Your task to perform on an android device: move a message to another label in the gmail app Image 0: 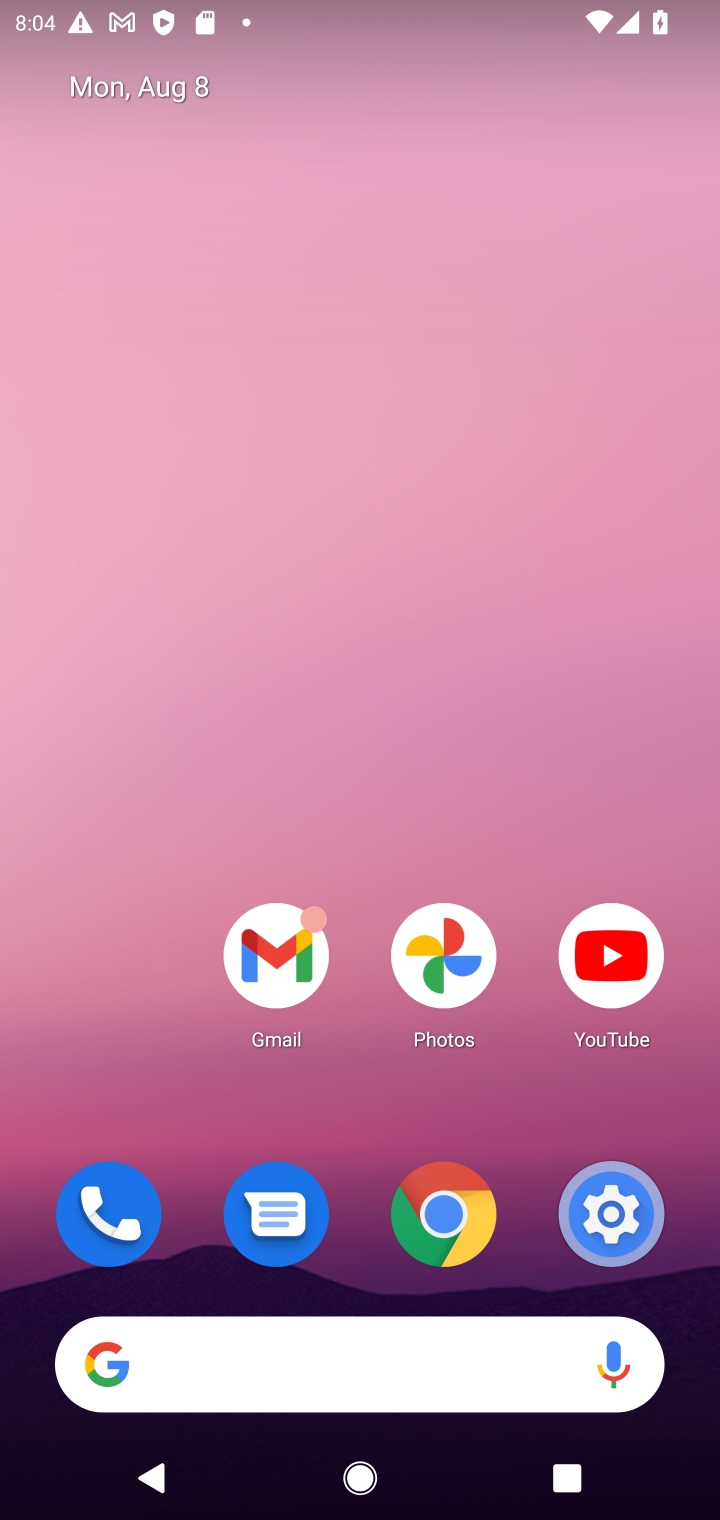
Step 0: click (264, 959)
Your task to perform on an android device: move a message to another label in the gmail app Image 1: 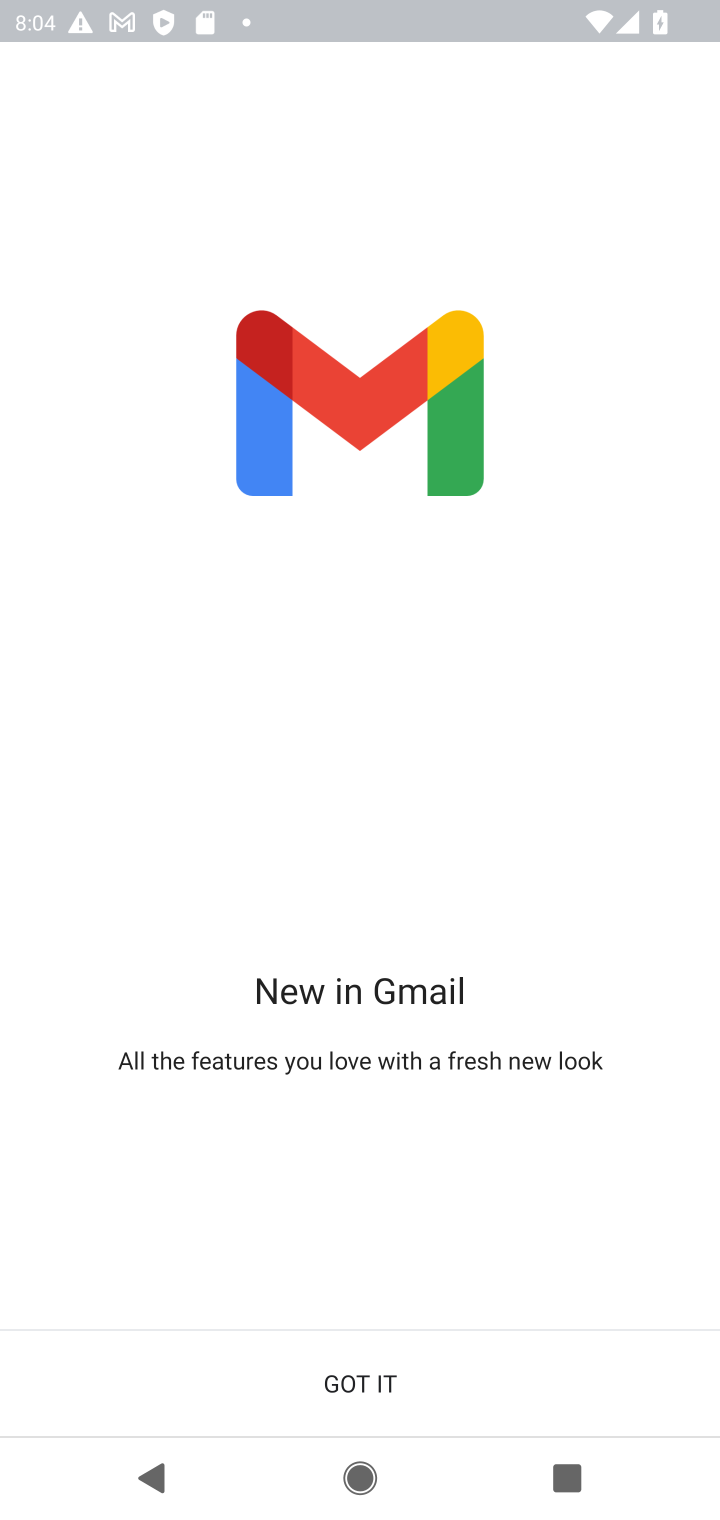
Step 1: click (446, 1399)
Your task to perform on an android device: move a message to another label in the gmail app Image 2: 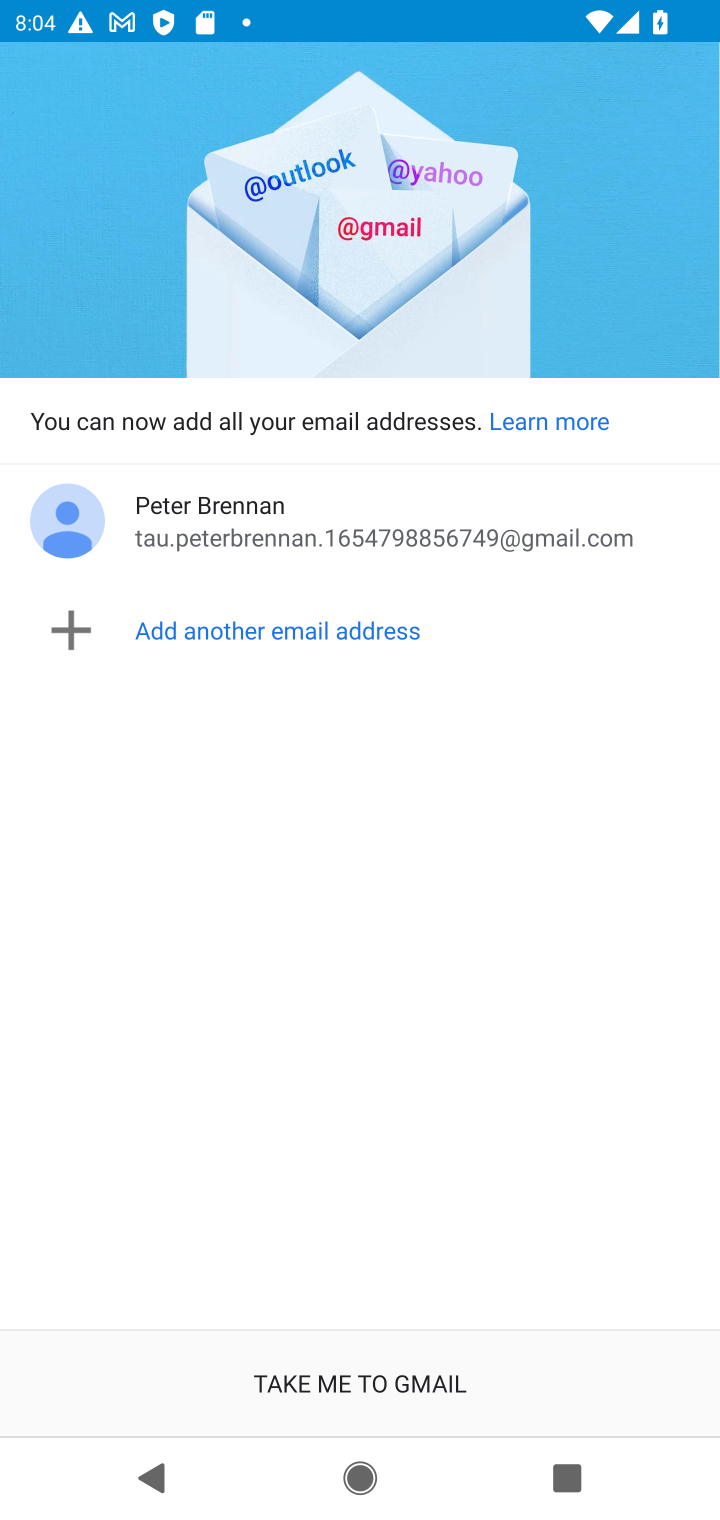
Step 2: click (424, 1383)
Your task to perform on an android device: move a message to another label in the gmail app Image 3: 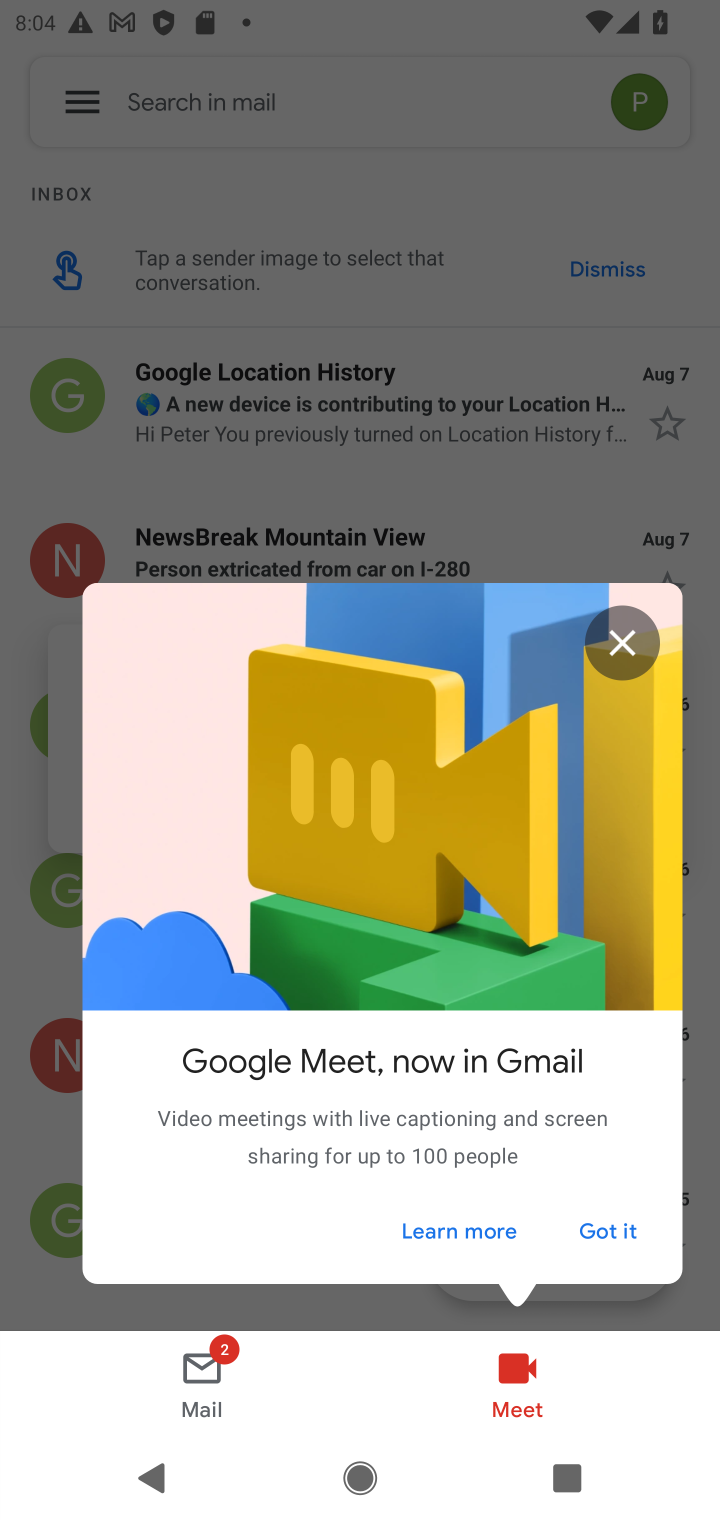
Step 3: click (610, 1236)
Your task to perform on an android device: move a message to another label in the gmail app Image 4: 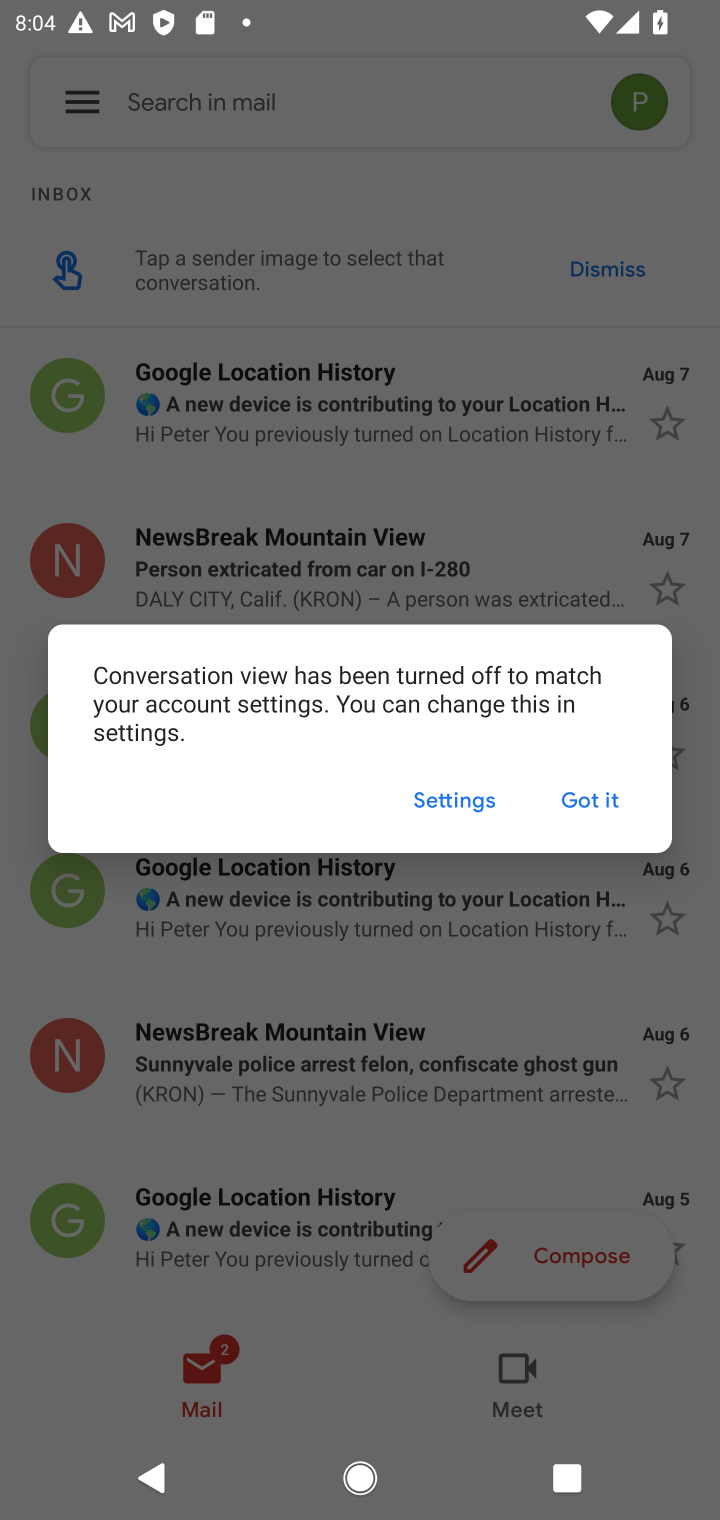
Step 4: click (574, 805)
Your task to perform on an android device: move a message to another label in the gmail app Image 5: 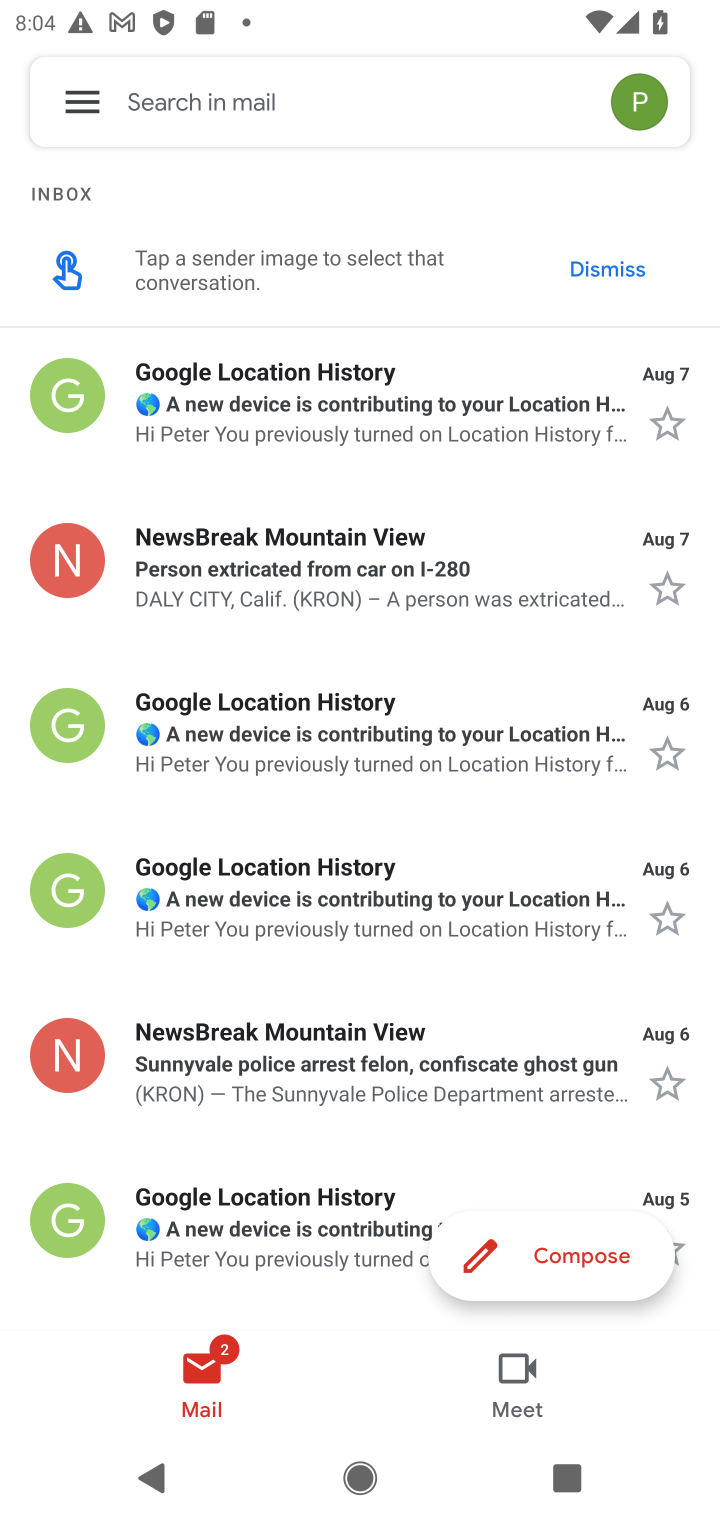
Step 5: click (337, 411)
Your task to perform on an android device: move a message to another label in the gmail app Image 6: 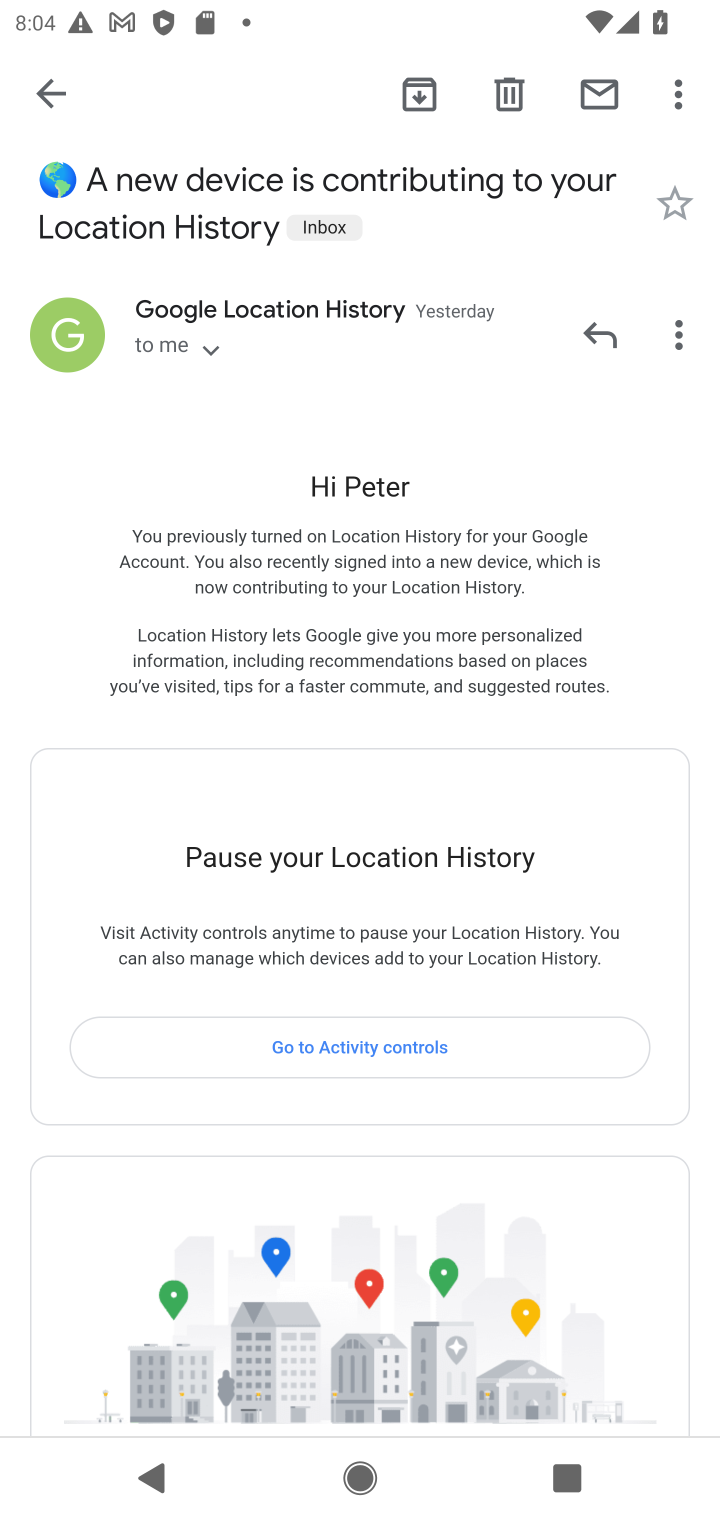
Step 6: click (672, 80)
Your task to perform on an android device: move a message to another label in the gmail app Image 7: 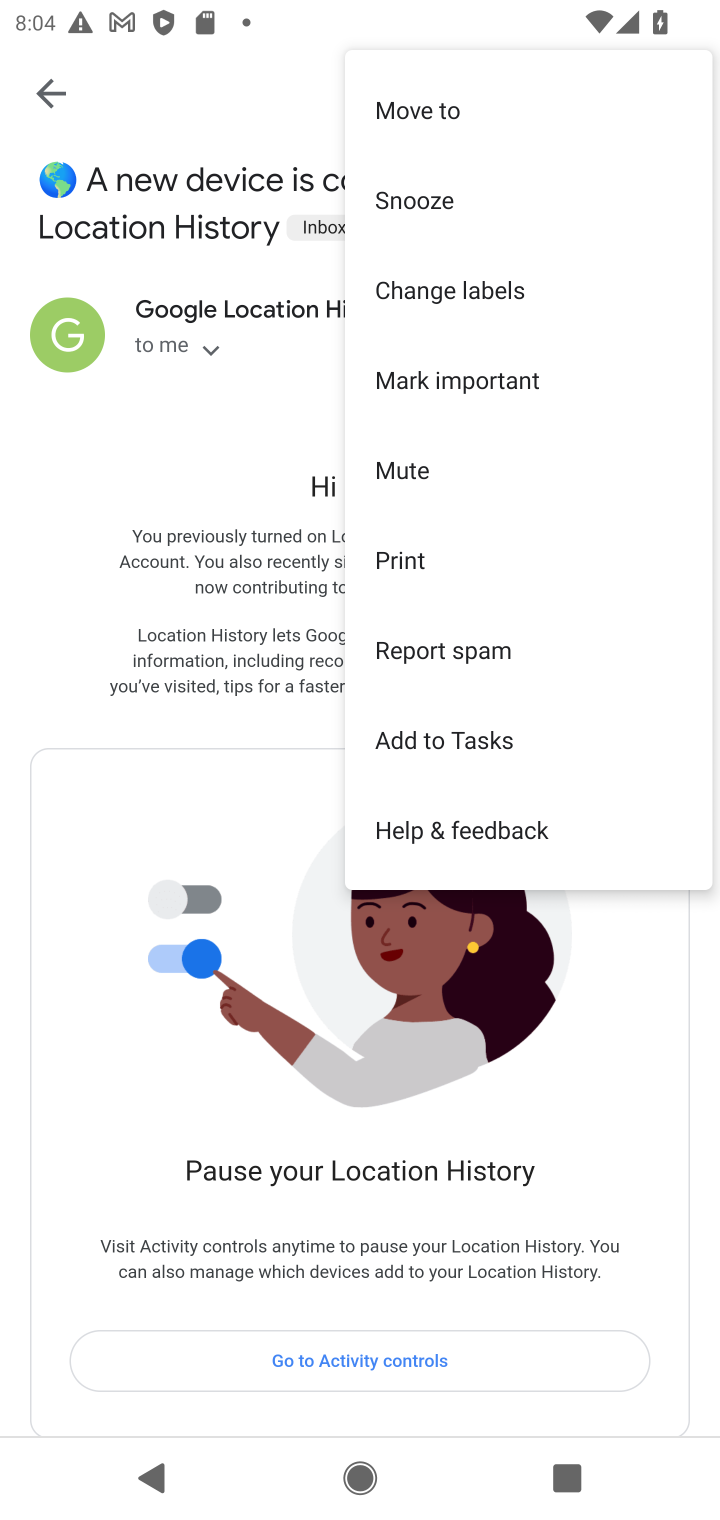
Step 7: click (426, 100)
Your task to perform on an android device: move a message to another label in the gmail app Image 8: 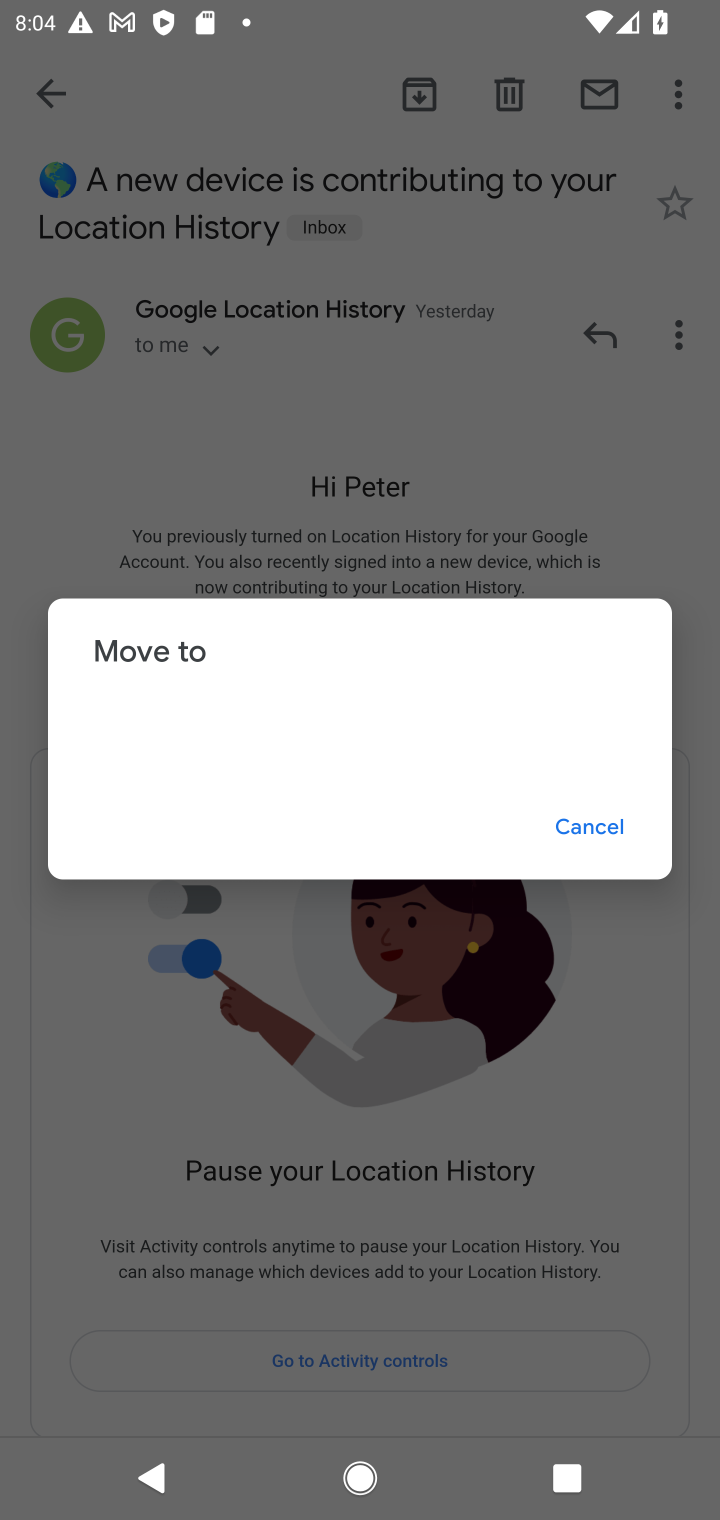
Step 8: click (574, 824)
Your task to perform on an android device: move a message to another label in the gmail app Image 9: 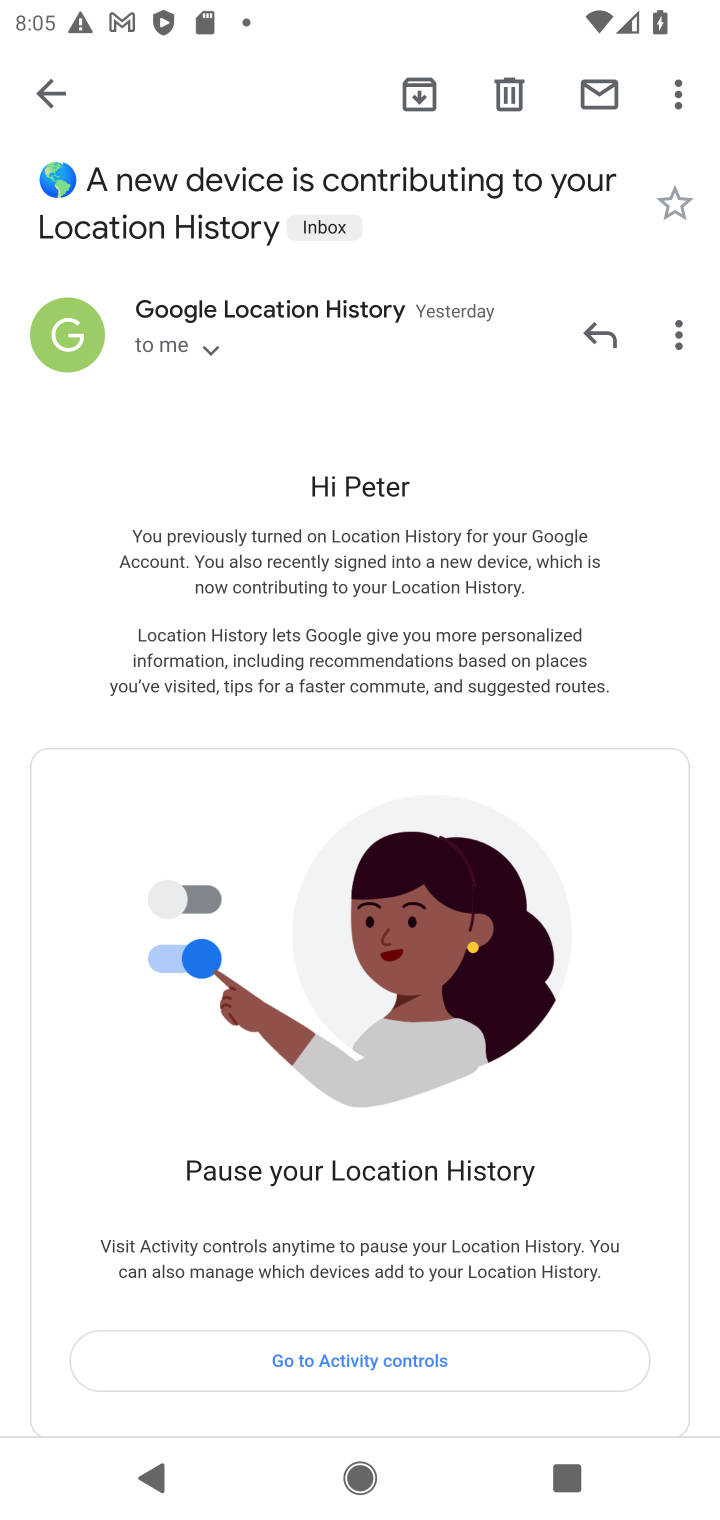
Step 9: click (663, 109)
Your task to perform on an android device: move a message to another label in the gmail app Image 10: 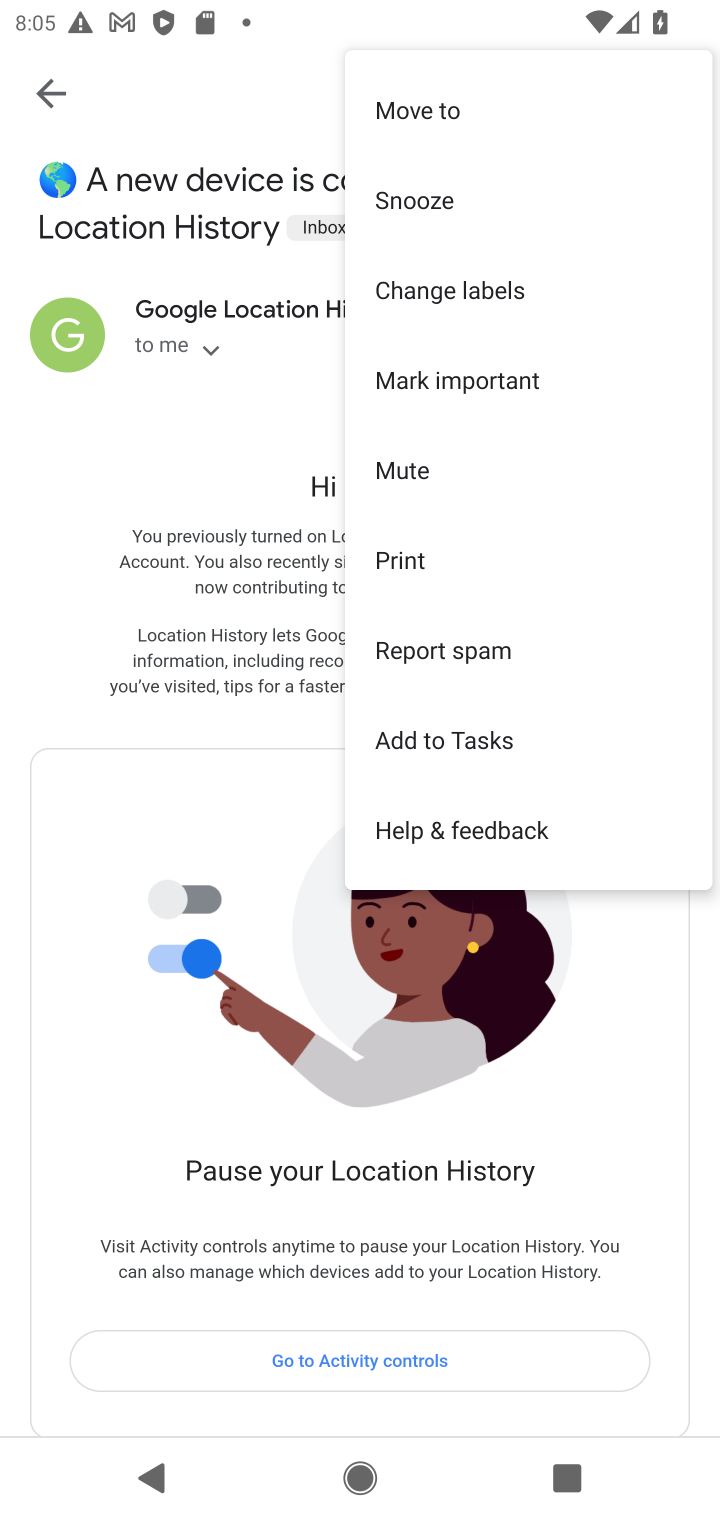
Step 10: click (546, 299)
Your task to perform on an android device: move a message to another label in the gmail app Image 11: 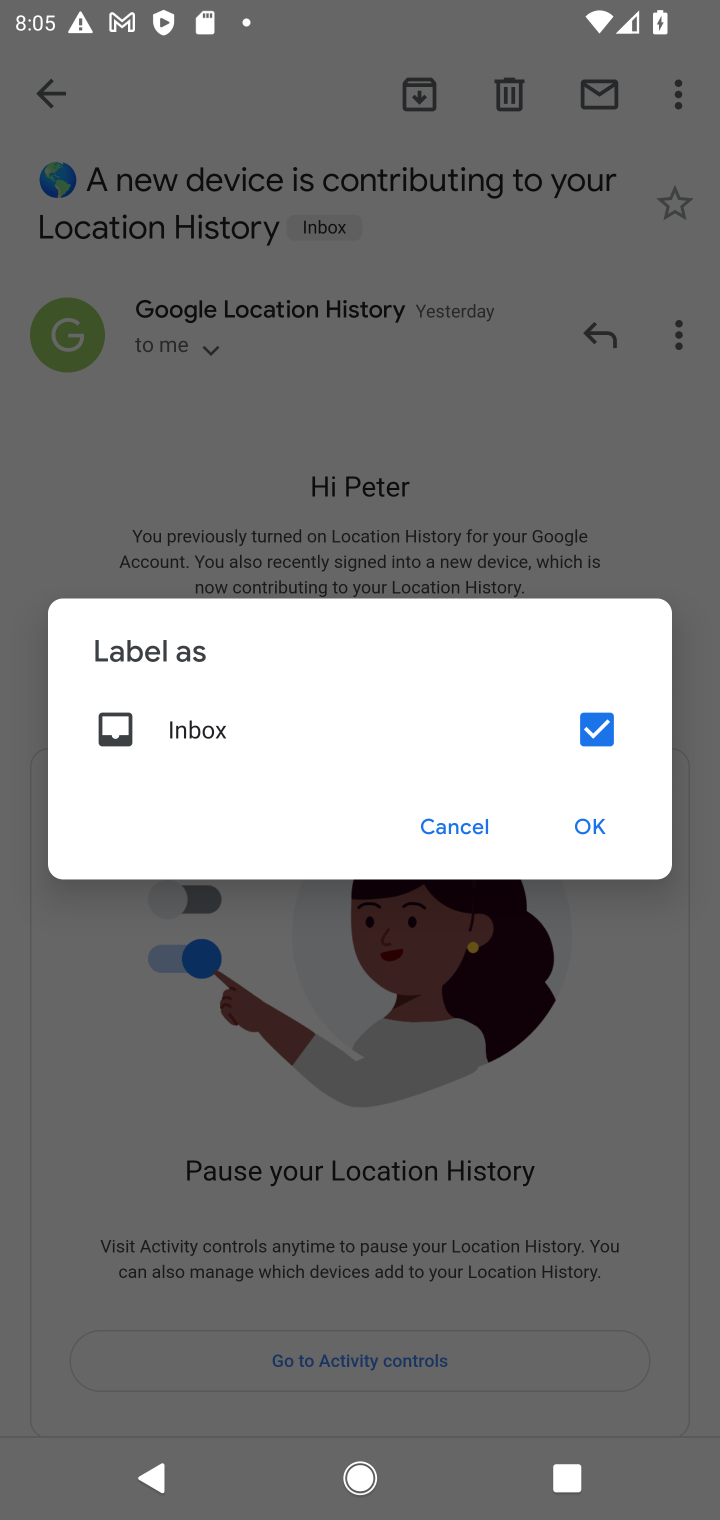
Step 11: click (590, 827)
Your task to perform on an android device: move a message to another label in the gmail app Image 12: 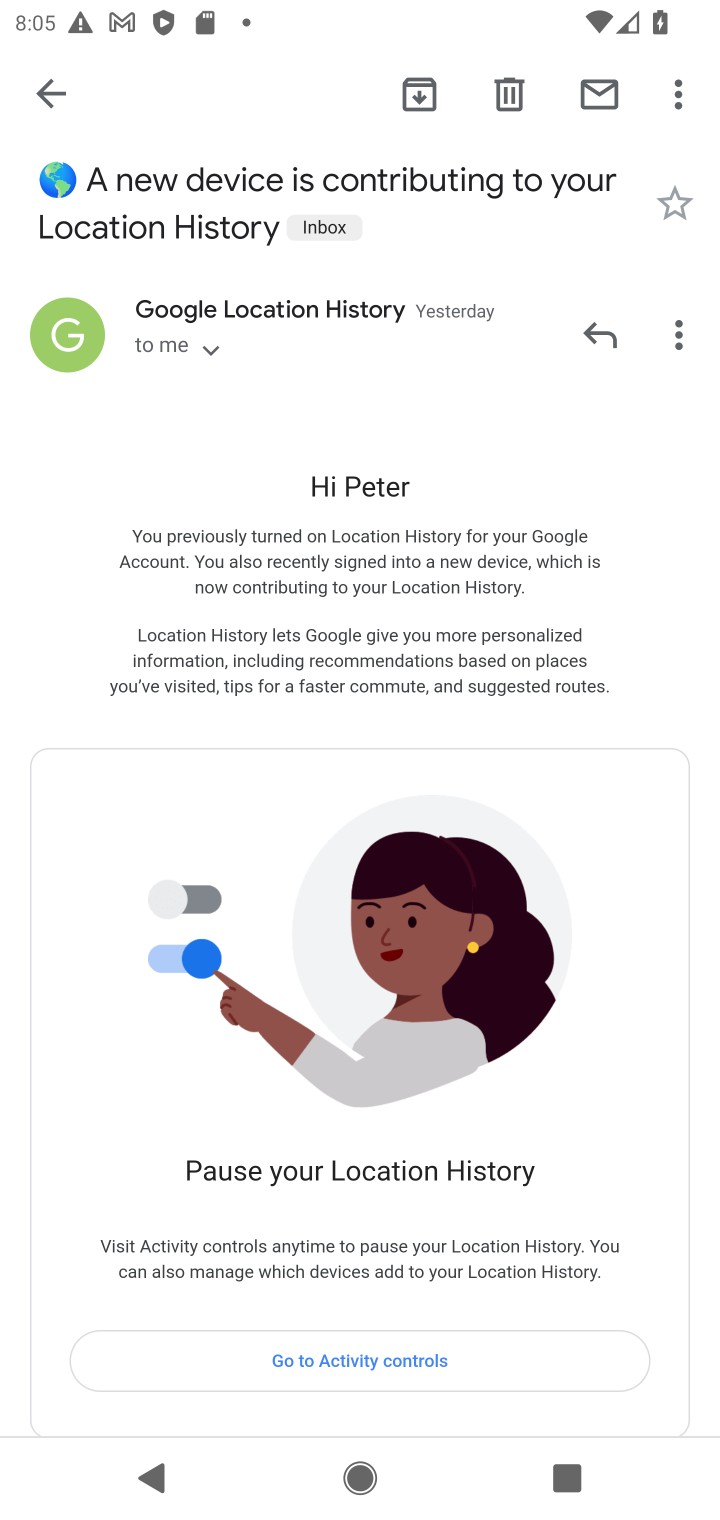
Step 12: task complete